Your task to perform on an android device: toggle data saver in the chrome app Image 0: 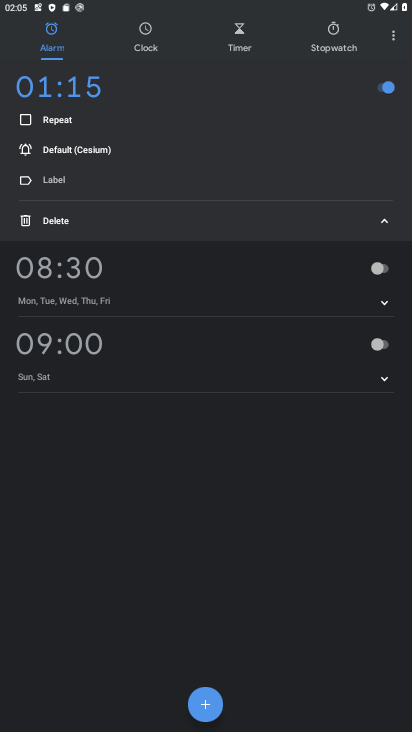
Step 0: press home button
Your task to perform on an android device: toggle data saver in the chrome app Image 1: 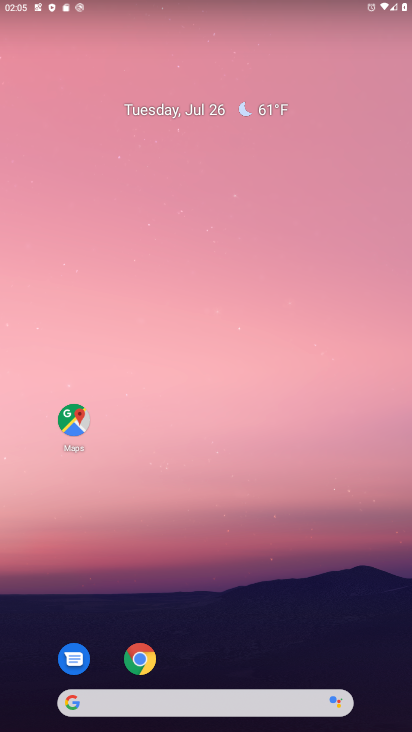
Step 1: drag from (255, 623) to (265, 155)
Your task to perform on an android device: toggle data saver in the chrome app Image 2: 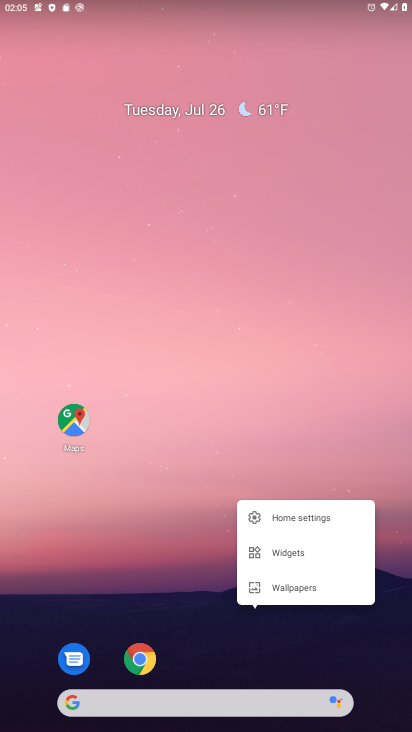
Step 2: click (223, 336)
Your task to perform on an android device: toggle data saver in the chrome app Image 3: 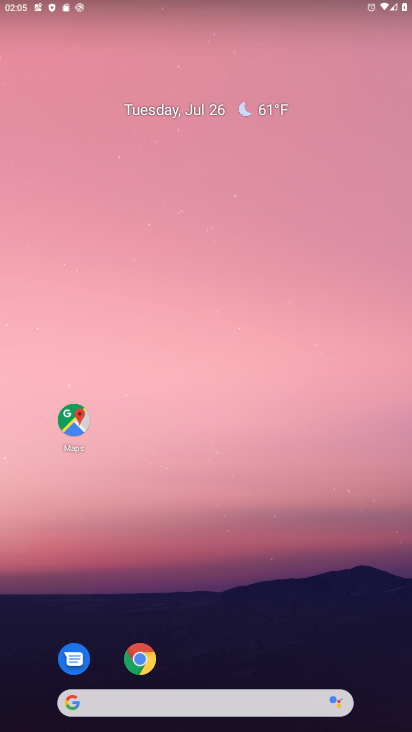
Step 3: drag from (262, 555) to (255, 116)
Your task to perform on an android device: toggle data saver in the chrome app Image 4: 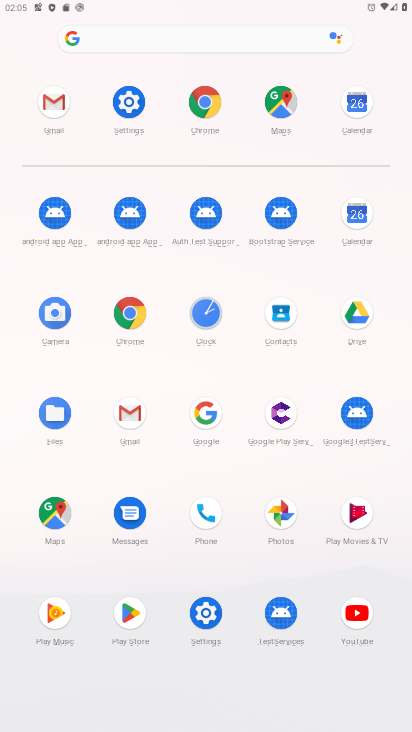
Step 4: click (205, 106)
Your task to perform on an android device: toggle data saver in the chrome app Image 5: 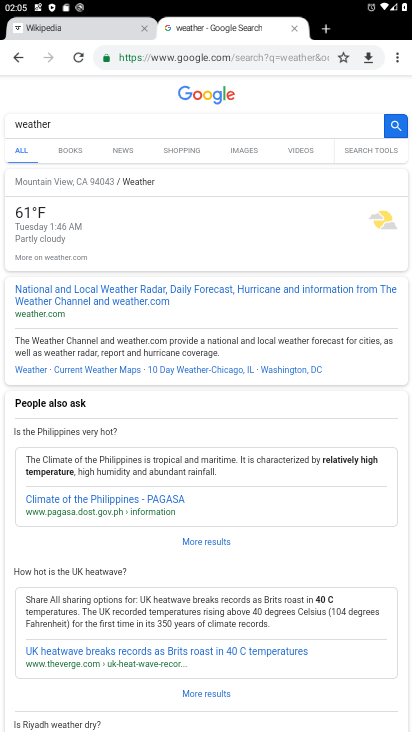
Step 5: drag from (397, 57) to (269, 363)
Your task to perform on an android device: toggle data saver in the chrome app Image 6: 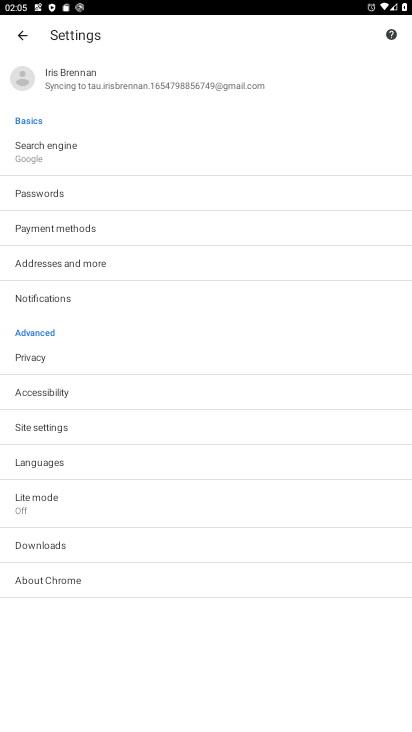
Step 6: click (60, 500)
Your task to perform on an android device: toggle data saver in the chrome app Image 7: 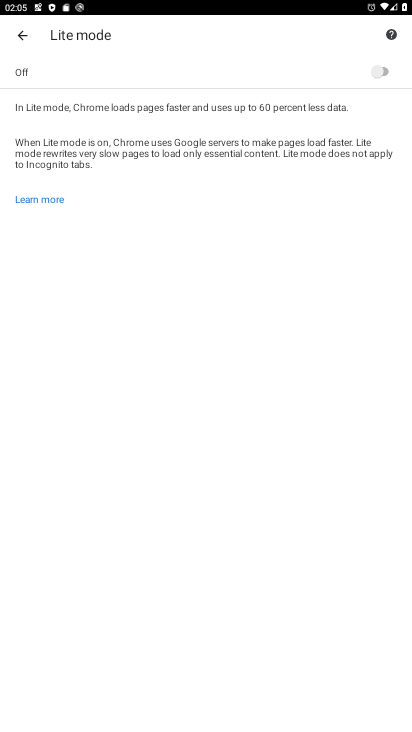
Step 7: click (380, 64)
Your task to perform on an android device: toggle data saver in the chrome app Image 8: 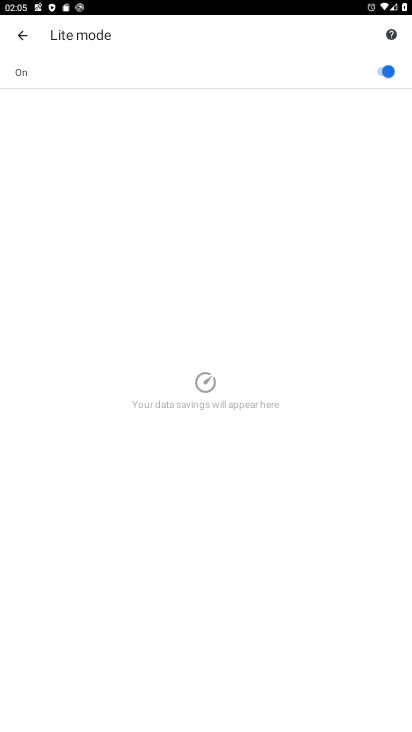
Step 8: task complete